Your task to perform on an android device: check data usage Image 0: 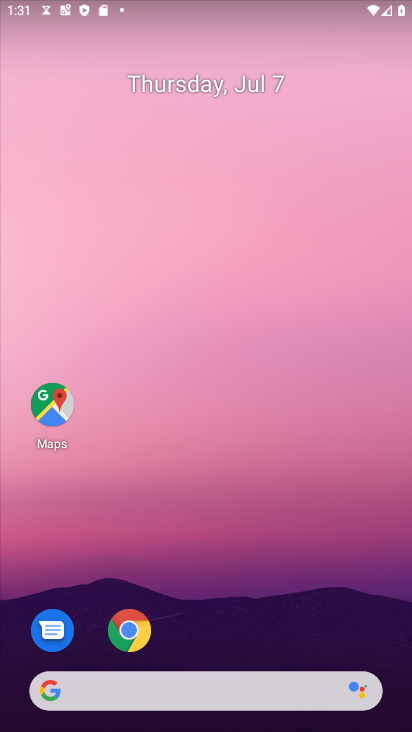
Step 0: drag from (277, 624) to (187, 56)
Your task to perform on an android device: check data usage Image 1: 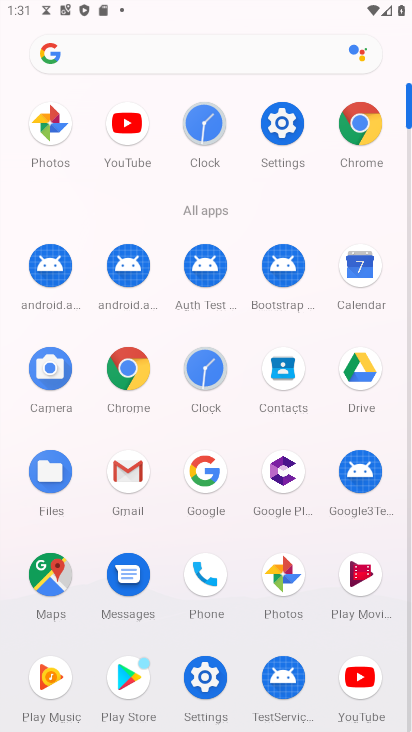
Step 1: click (295, 134)
Your task to perform on an android device: check data usage Image 2: 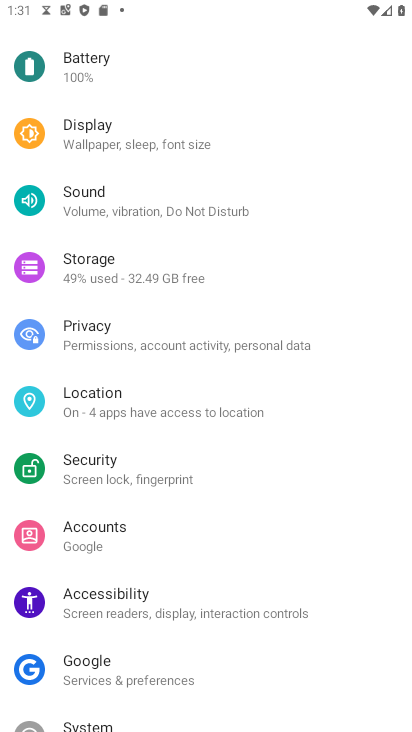
Step 2: drag from (261, 140) to (251, 344)
Your task to perform on an android device: check data usage Image 3: 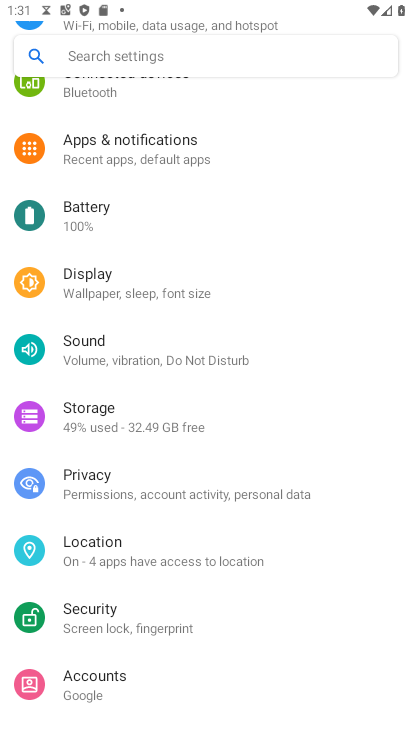
Step 3: drag from (186, 192) to (130, 660)
Your task to perform on an android device: check data usage Image 4: 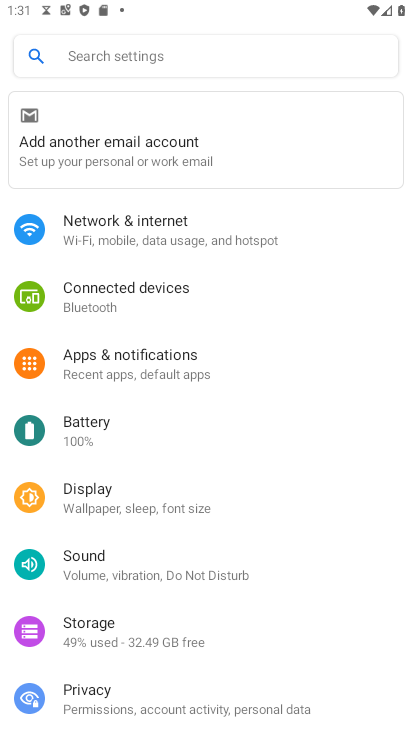
Step 4: click (171, 221)
Your task to perform on an android device: check data usage Image 5: 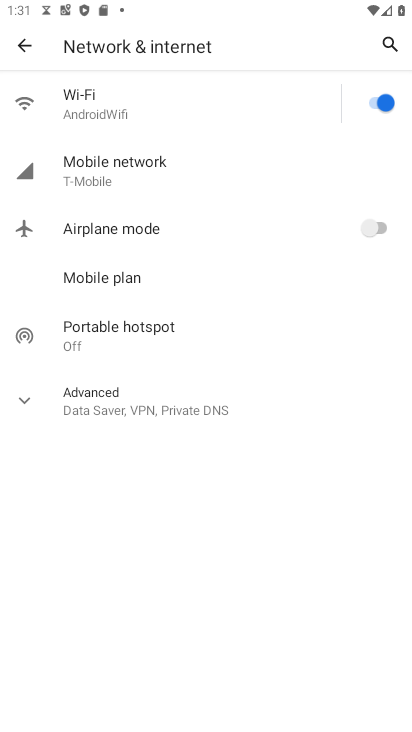
Step 5: click (191, 111)
Your task to perform on an android device: check data usage Image 6: 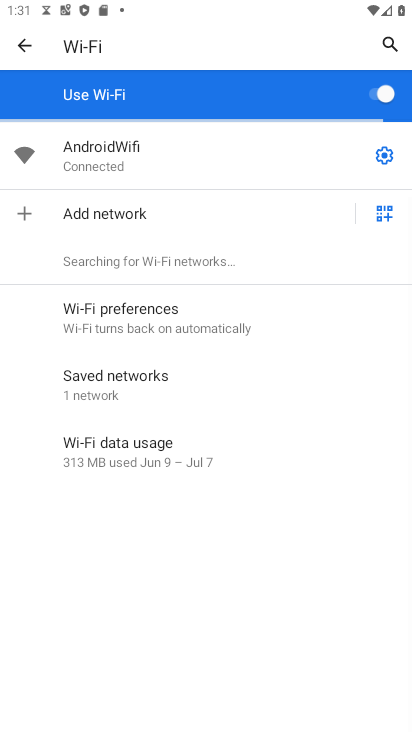
Step 6: click (209, 440)
Your task to perform on an android device: check data usage Image 7: 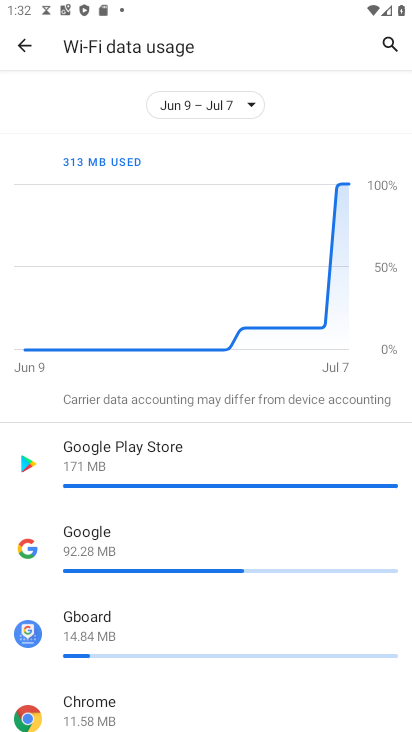
Step 7: task complete